Your task to perform on an android device: turn off location Image 0: 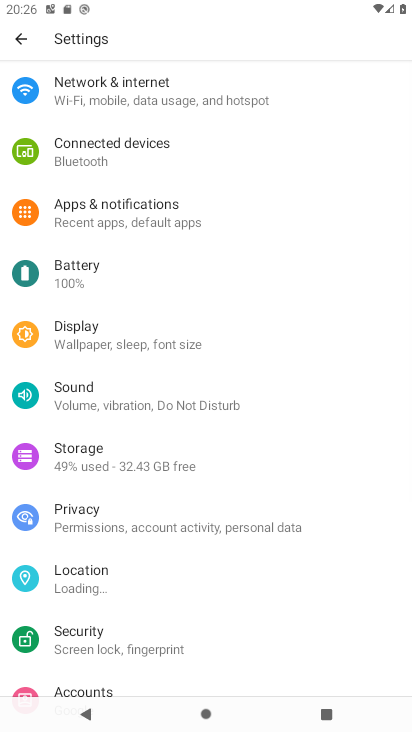
Step 0: press home button
Your task to perform on an android device: turn off location Image 1: 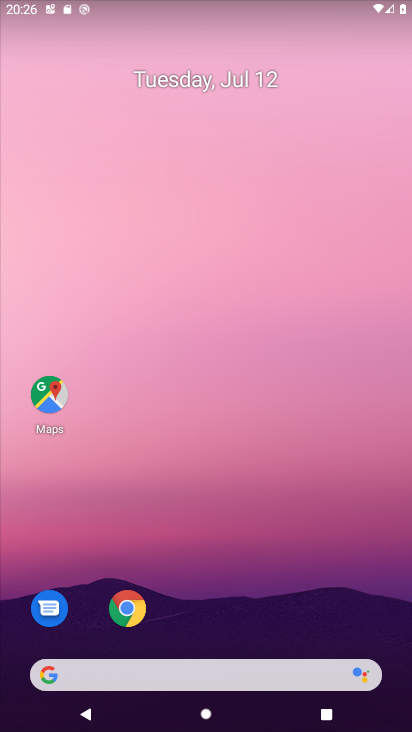
Step 1: drag from (231, 679) to (367, 239)
Your task to perform on an android device: turn off location Image 2: 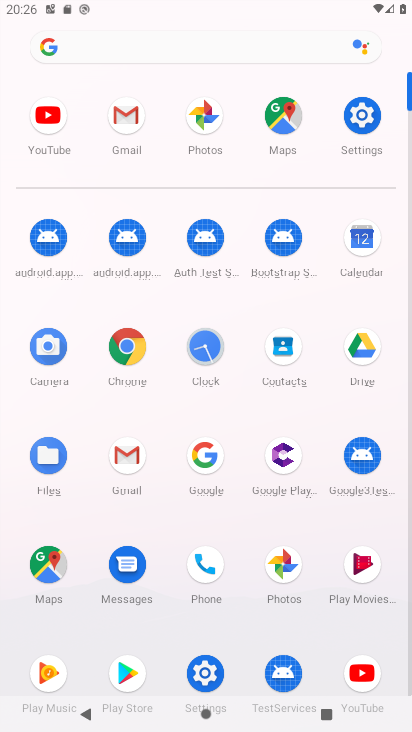
Step 2: click (366, 114)
Your task to perform on an android device: turn off location Image 3: 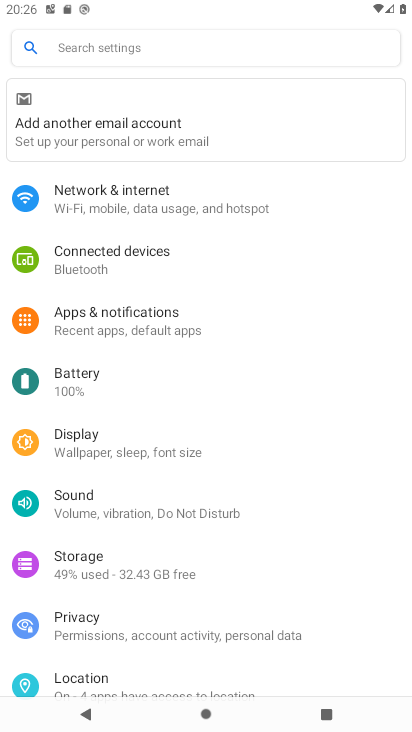
Step 3: drag from (330, 519) to (401, 135)
Your task to perform on an android device: turn off location Image 4: 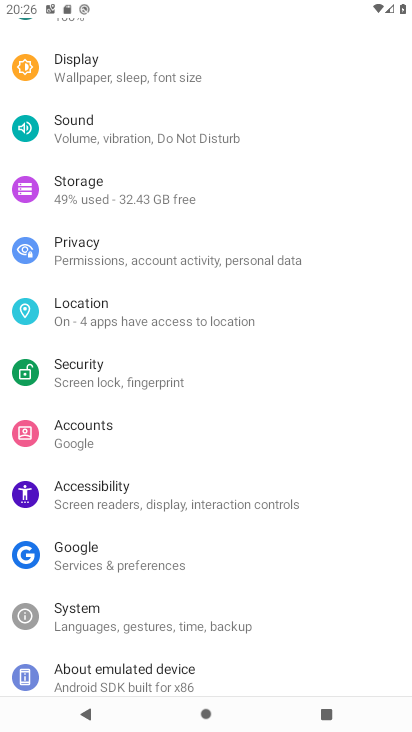
Step 4: click (189, 319)
Your task to perform on an android device: turn off location Image 5: 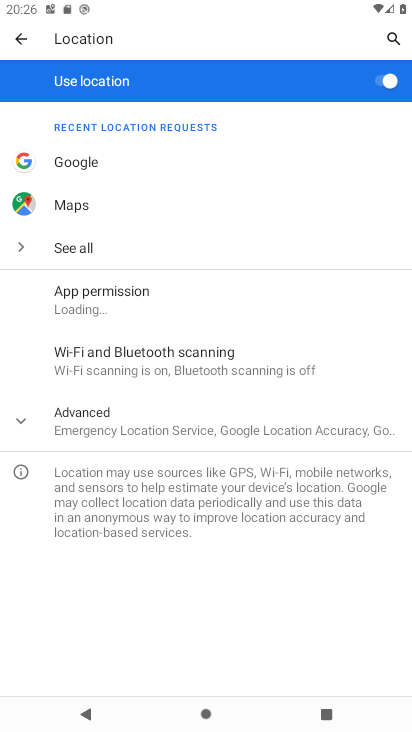
Step 5: click (381, 74)
Your task to perform on an android device: turn off location Image 6: 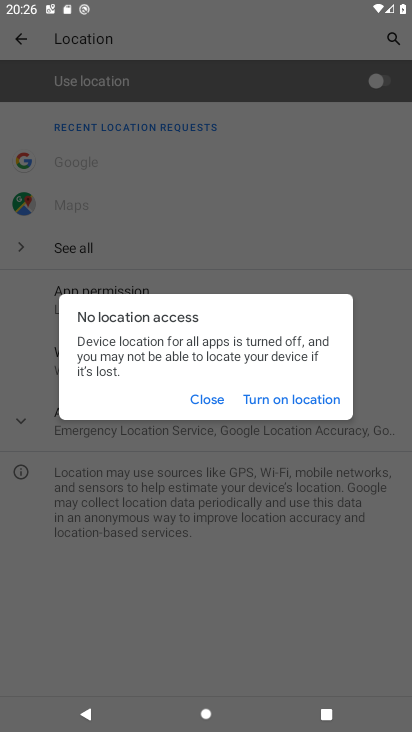
Step 6: click (211, 406)
Your task to perform on an android device: turn off location Image 7: 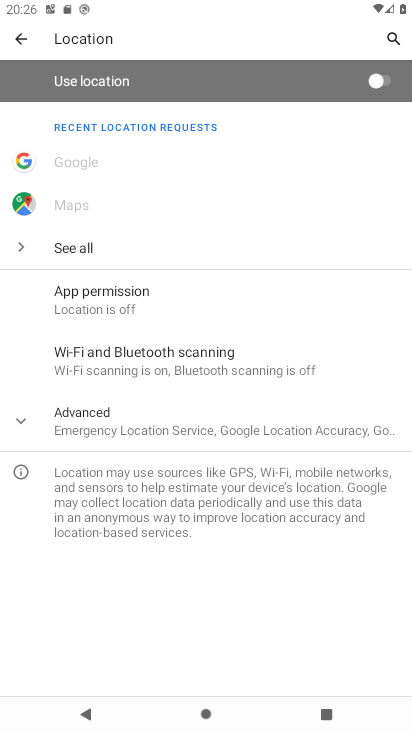
Step 7: task complete